Your task to perform on an android device: Set the phone to "Do not disturb". Image 0: 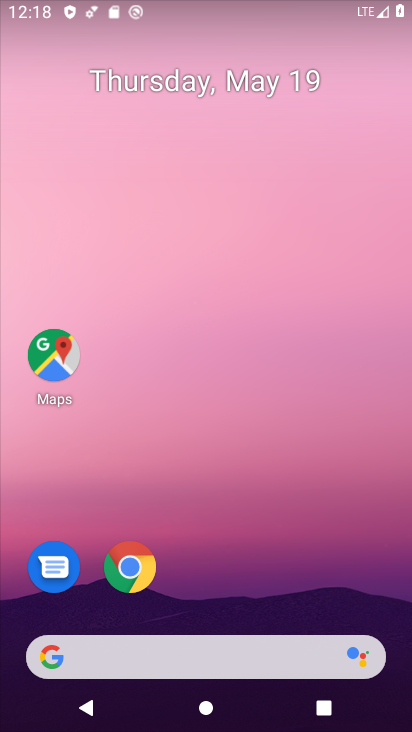
Step 0: drag from (261, 503) to (204, 18)
Your task to perform on an android device: Set the phone to "Do not disturb". Image 1: 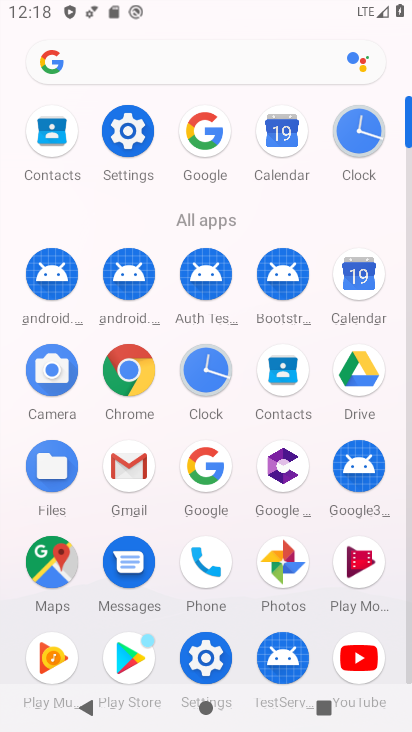
Step 1: click (114, 141)
Your task to perform on an android device: Set the phone to "Do not disturb". Image 2: 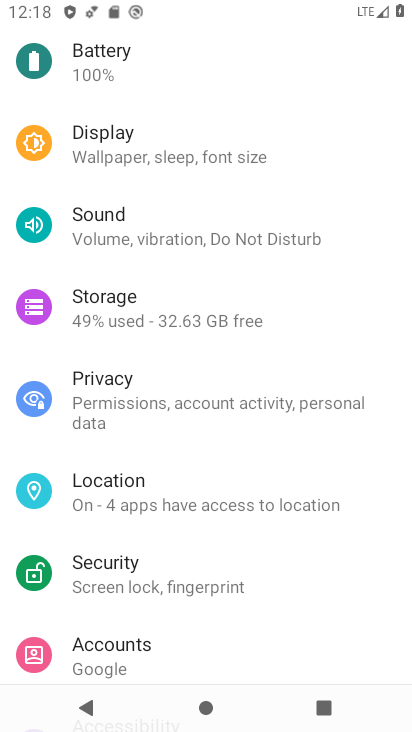
Step 2: click (255, 220)
Your task to perform on an android device: Set the phone to "Do not disturb". Image 3: 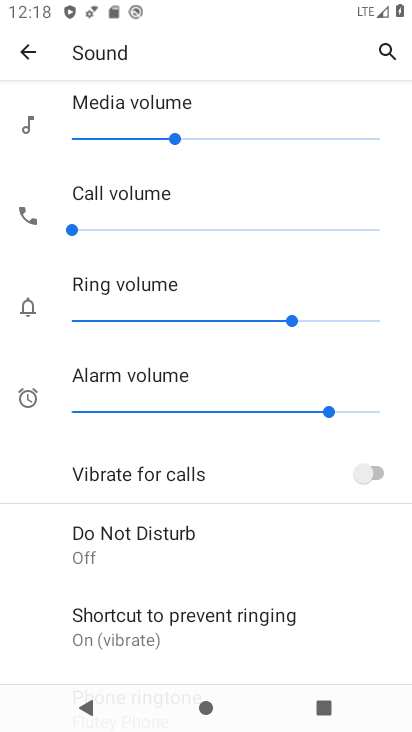
Step 3: click (222, 544)
Your task to perform on an android device: Set the phone to "Do not disturb". Image 4: 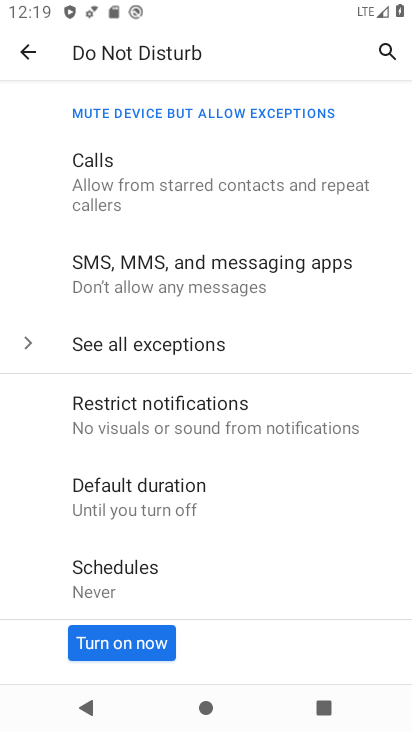
Step 4: click (160, 645)
Your task to perform on an android device: Set the phone to "Do not disturb". Image 5: 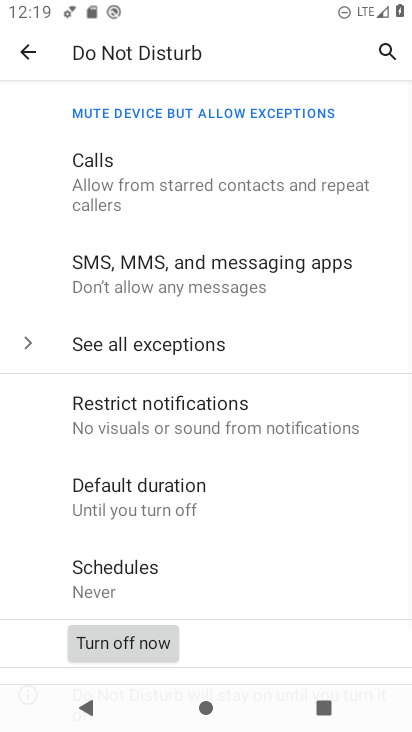
Step 5: task complete